Your task to perform on an android device: Search for a new lipstick on Sephora Image 0: 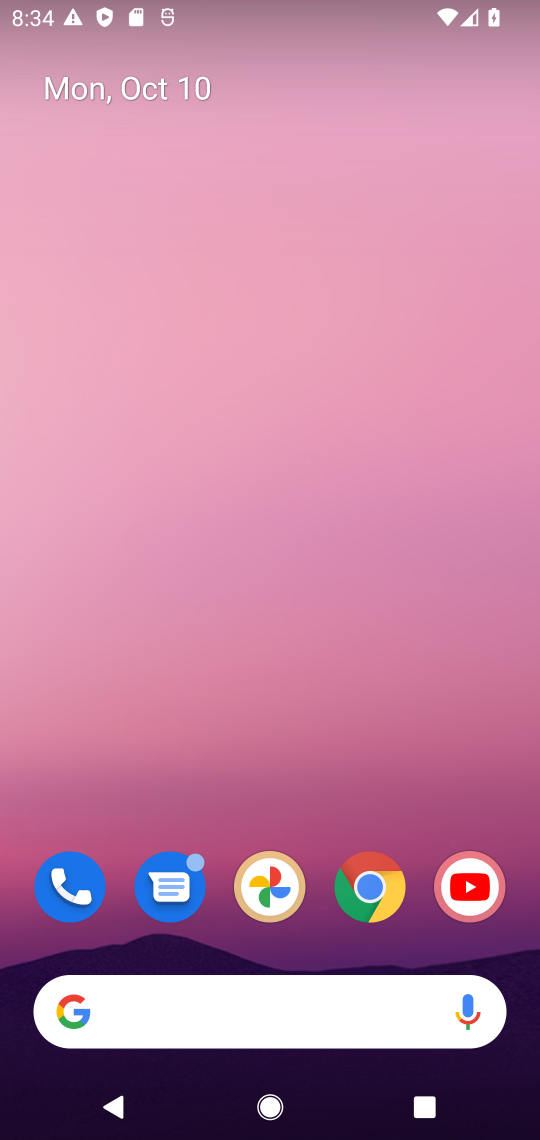
Step 0: click (374, 881)
Your task to perform on an android device: Search for a new lipstick on Sephora Image 1: 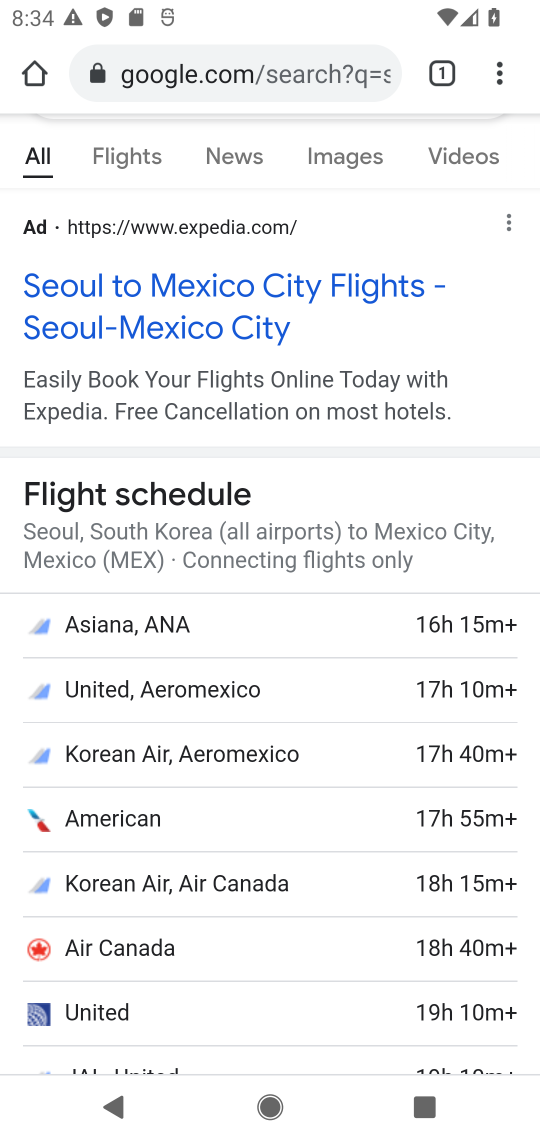
Step 1: click (228, 60)
Your task to perform on an android device: Search for a new lipstick on Sephora Image 2: 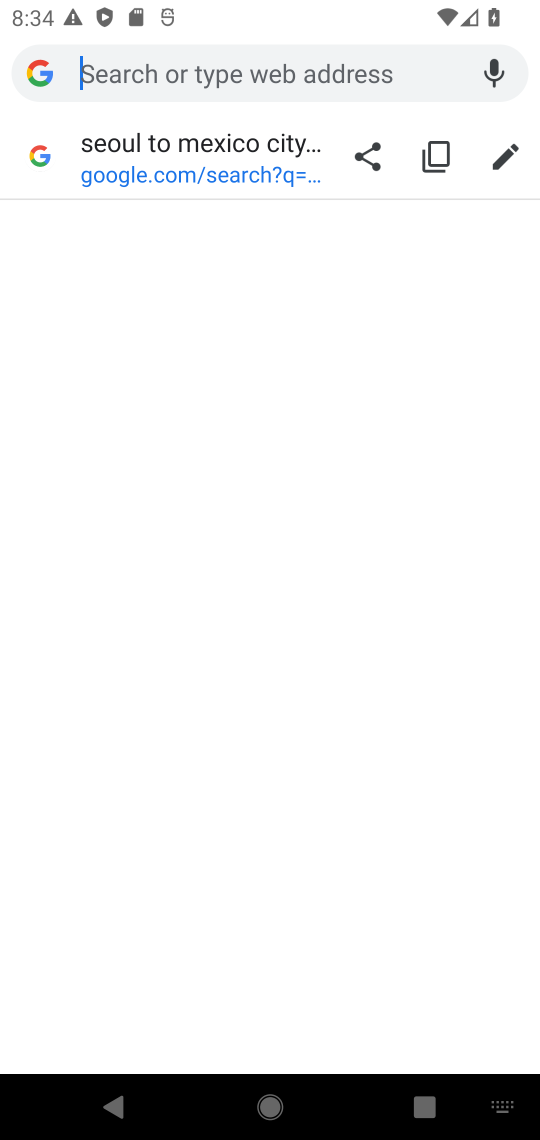
Step 2: type "new lipstick on sephora"
Your task to perform on an android device: Search for a new lipstick on Sephora Image 3: 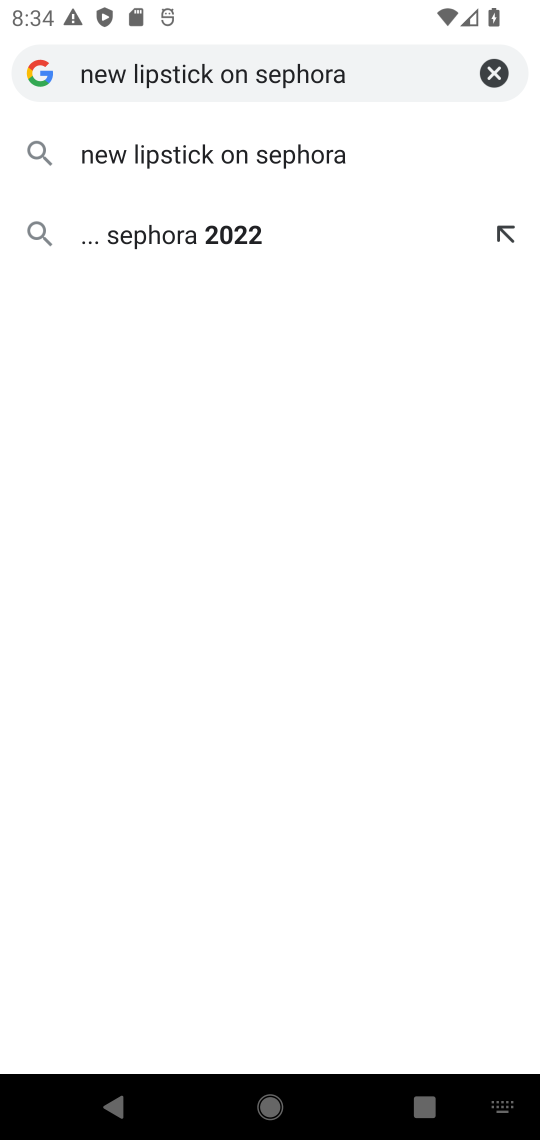
Step 3: click (293, 135)
Your task to perform on an android device: Search for a new lipstick on Sephora Image 4: 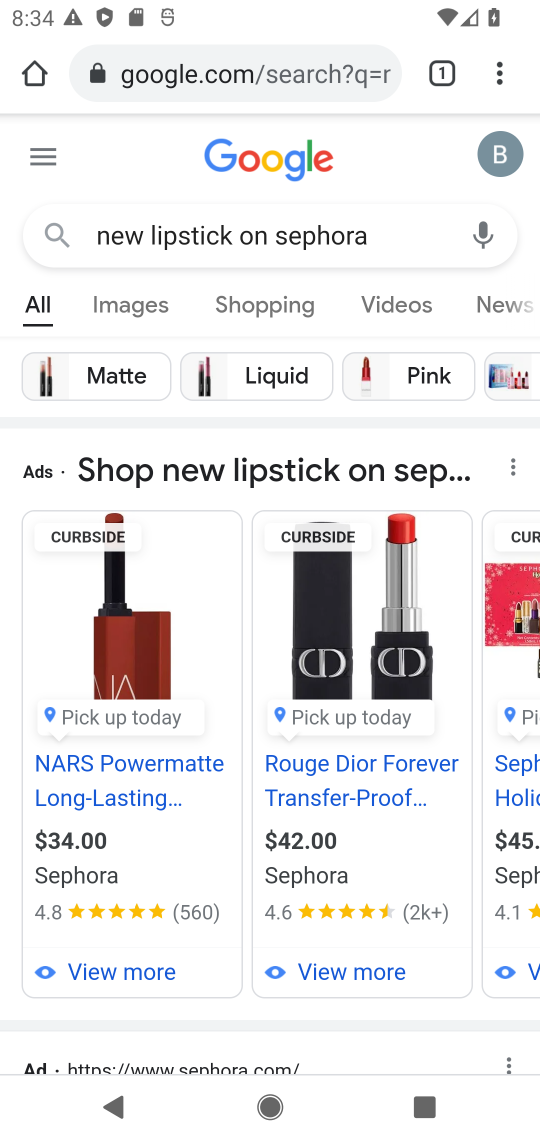
Step 4: task complete